Your task to perform on an android device: What's on my calendar today? Image 0: 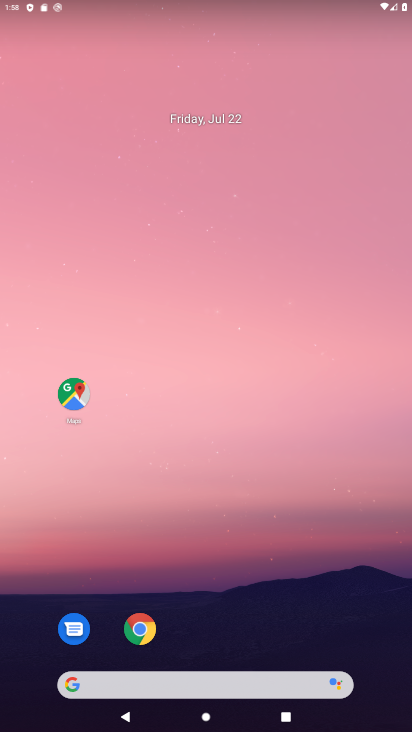
Step 0: drag from (248, 600) to (209, 248)
Your task to perform on an android device: What's on my calendar today? Image 1: 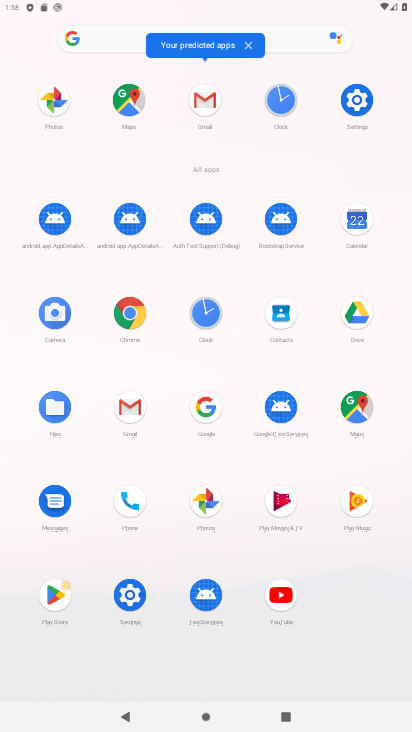
Step 1: click (360, 224)
Your task to perform on an android device: What's on my calendar today? Image 2: 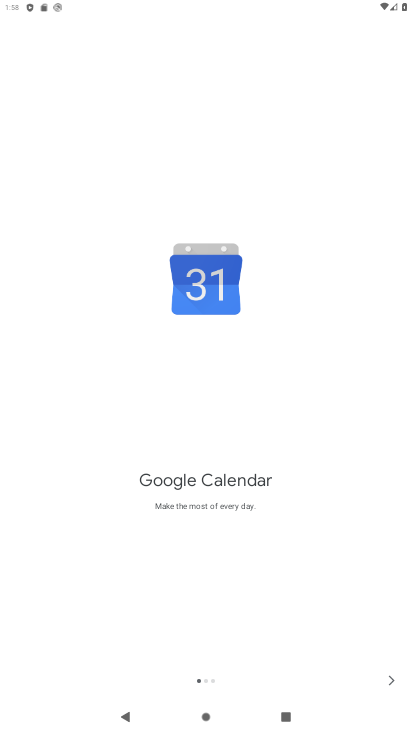
Step 2: click (397, 675)
Your task to perform on an android device: What's on my calendar today? Image 3: 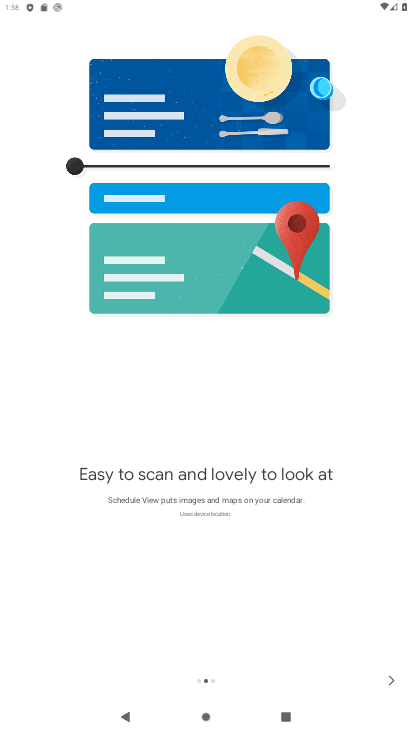
Step 3: click (387, 682)
Your task to perform on an android device: What's on my calendar today? Image 4: 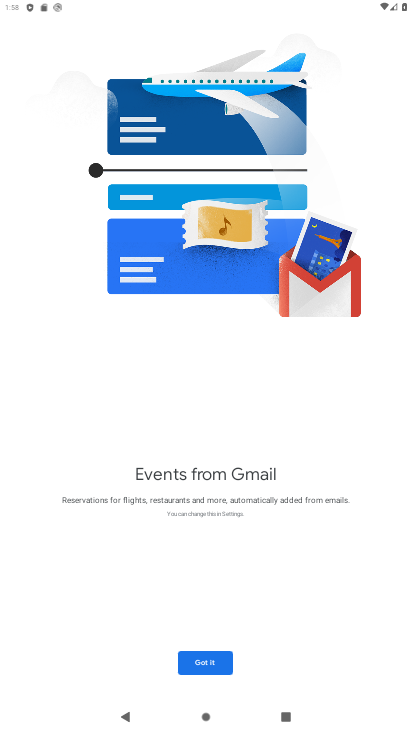
Step 4: click (190, 657)
Your task to perform on an android device: What's on my calendar today? Image 5: 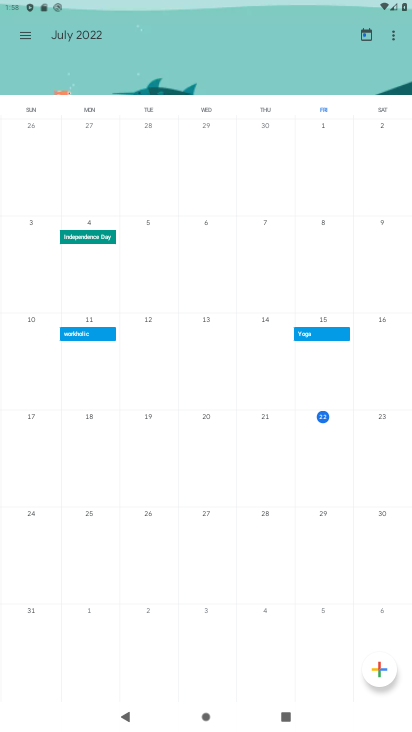
Step 5: click (323, 415)
Your task to perform on an android device: What's on my calendar today? Image 6: 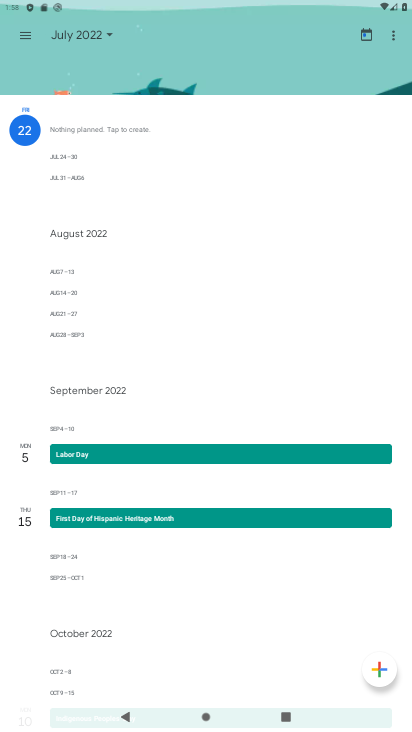
Step 6: task complete